Your task to perform on an android device: manage bookmarks in the chrome app Image 0: 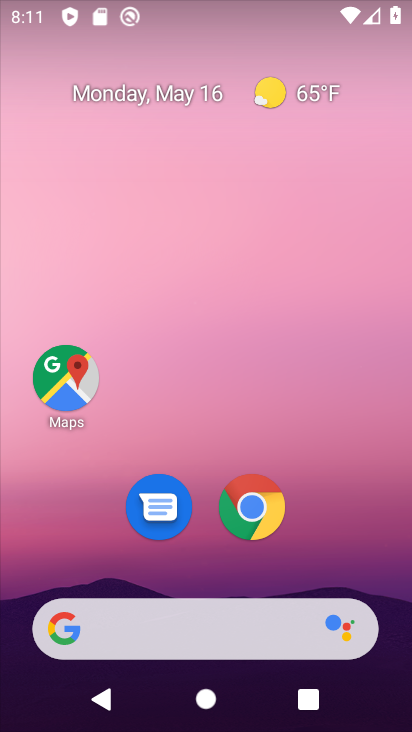
Step 0: click (256, 503)
Your task to perform on an android device: manage bookmarks in the chrome app Image 1: 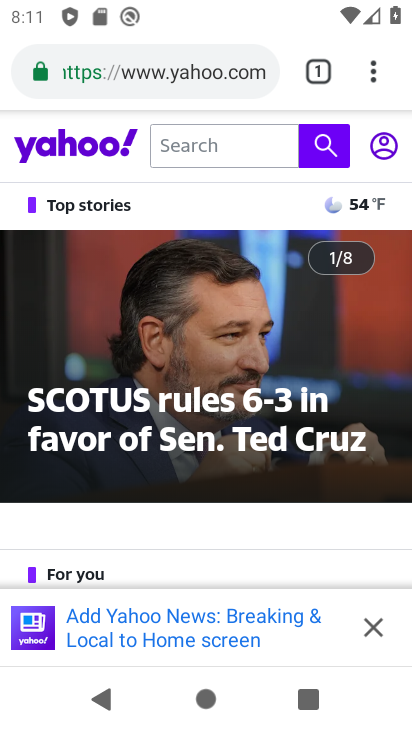
Step 1: click (365, 76)
Your task to perform on an android device: manage bookmarks in the chrome app Image 2: 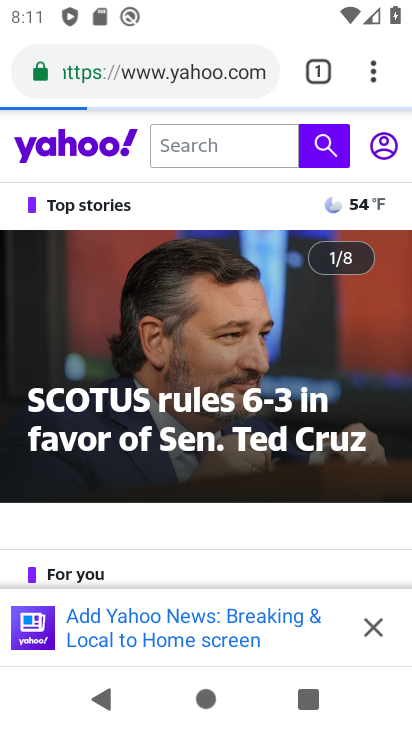
Step 2: drag from (372, 81) to (161, 515)
Your task to perform on an android device: manage bookmarks in the chrome app Image 3: 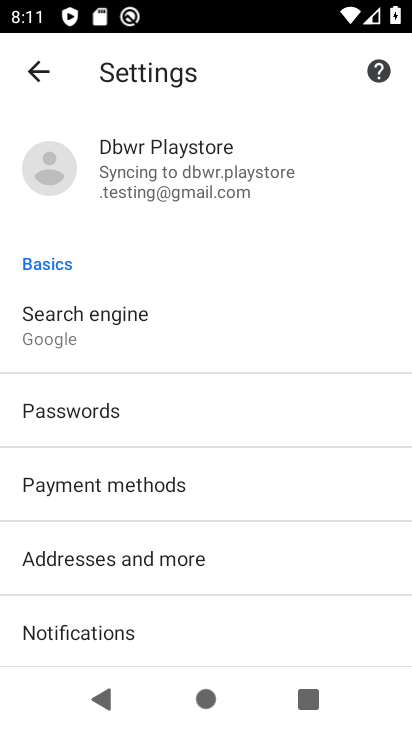
Step 3: click (53, 75)
Your task to perform on an android device: manage bookmarks in the chrome app Image 4: 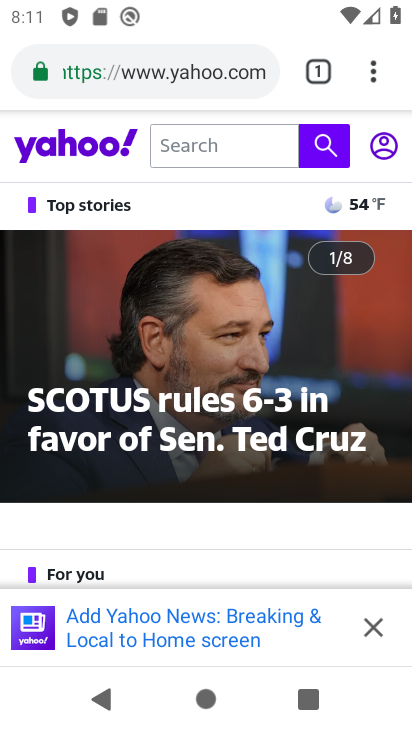
Step 4: task complete